Your task to perform on an android device: toggle priority inbox in the gmail app Image 0: 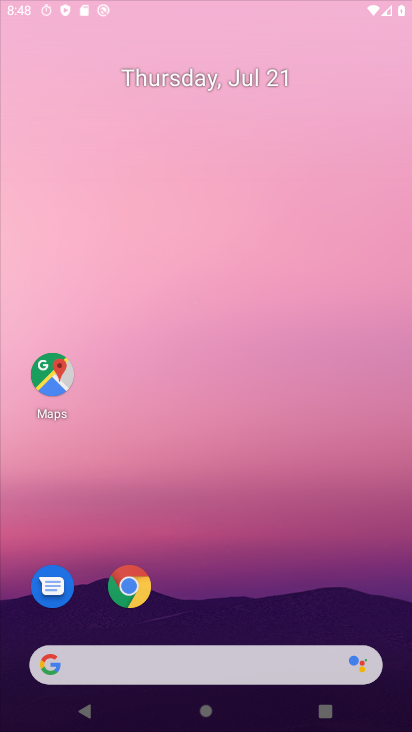
Step 0: click (316, 144)
Your task to perform on an android device: toggle priority inbox in the gmail app Image 1: 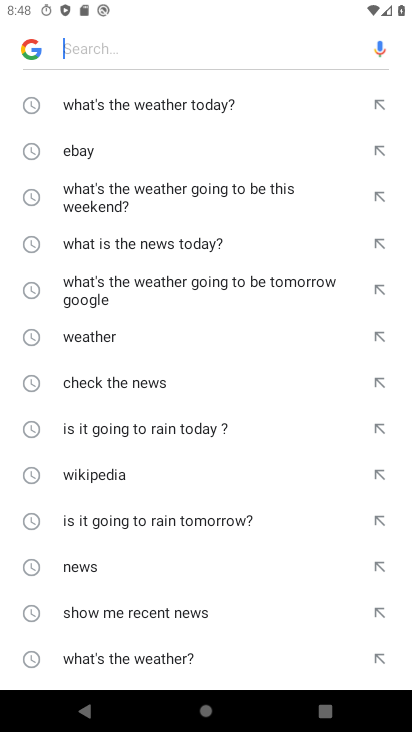
Step 1: press back button
Your task to perform on an android device: toggle priority inbox in the gmail app Image 2: 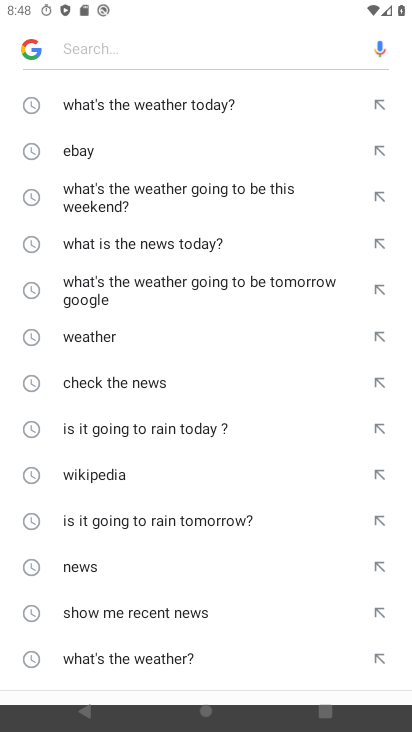
Step 2: press back button
Your task to perform on an android device: toggle priority inbox in the gmail app Image 3: 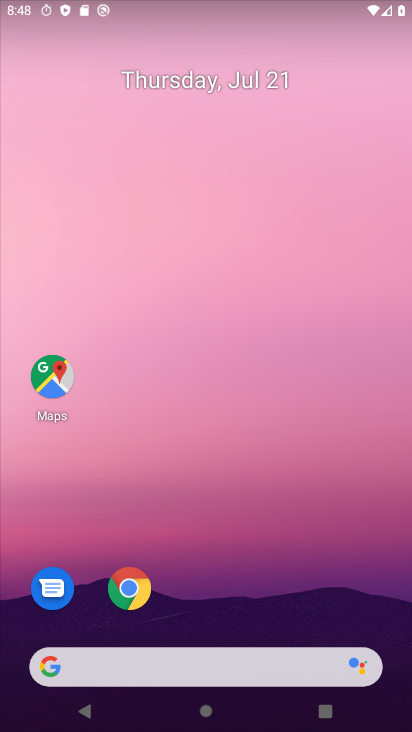
Step 3: drag from (277, 611) to (224, 33)
Your task to perform on an android device: toggle priority inbox in the gmail app Image 4: 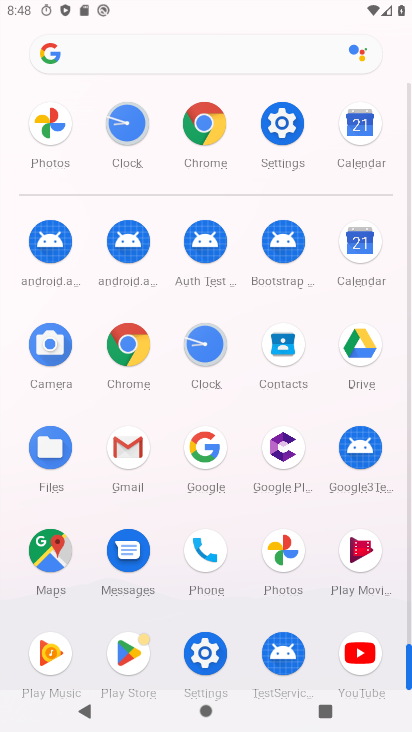
Step 4: click (136, 452)
Your task to perform on an android device: toggle priority inbox in the gmail app Image 5: 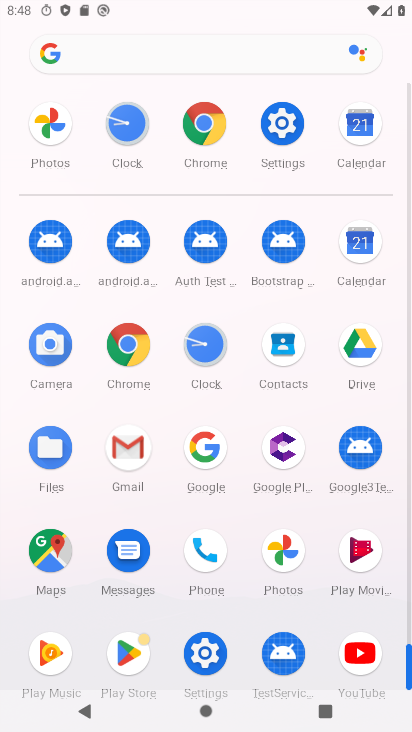
Step 5: click (129, 453)
Your task to perform on an android device: toggle priority inbox in the gmail app Image 6: 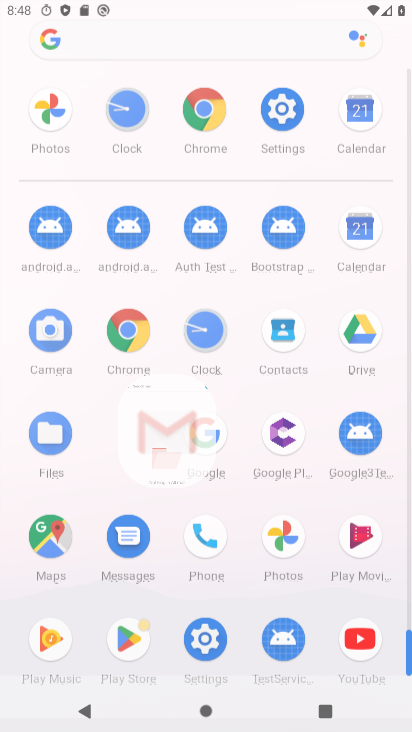
Step 6: click (129, 453)
Your task to perform on an android device: toggle priority inbox in the gmail app Image 7: 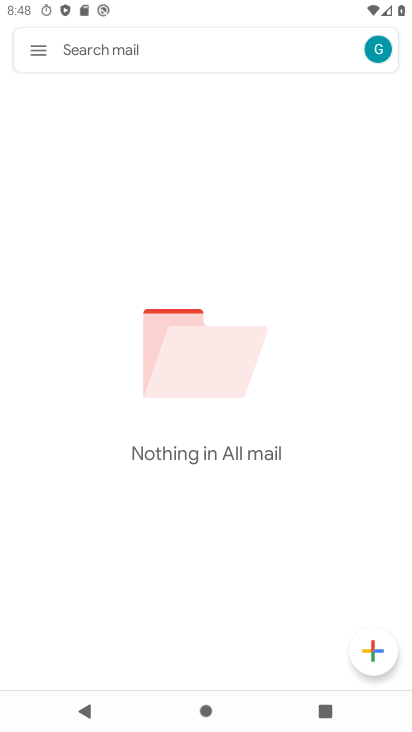
Step 7: click (38, 48)
Your task to perform on an android device: toggle priority inbox in the gmail app Image 8: 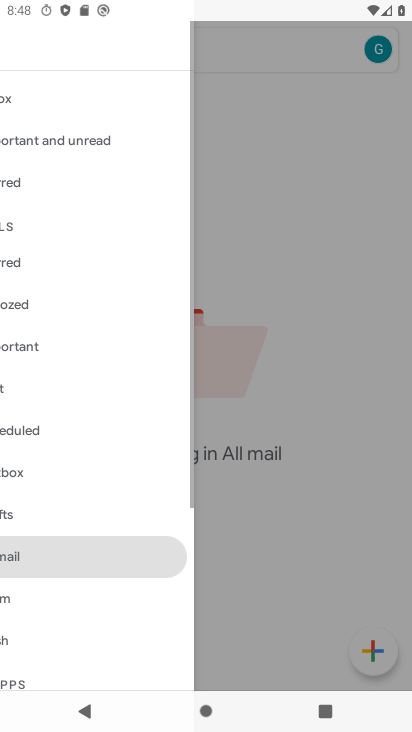
Step 8: click (37, 46)
Your task to perform on an android device: toggle priority inbox in the gmail app Image 9: 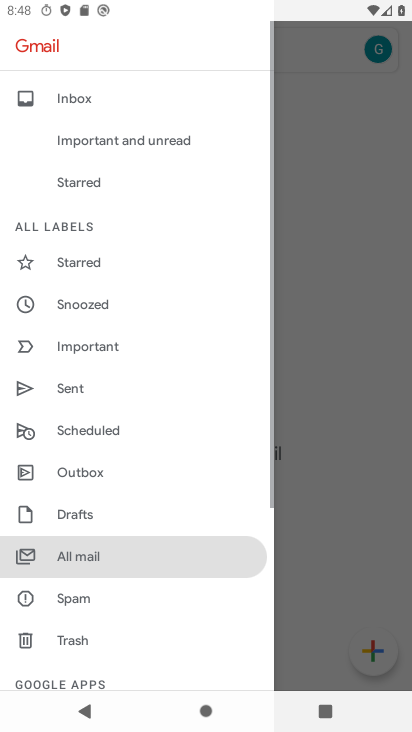
Step 9: click (37, 46)
Your task to perform on an android device: toggle priority inbox in the gmail app Image 10: 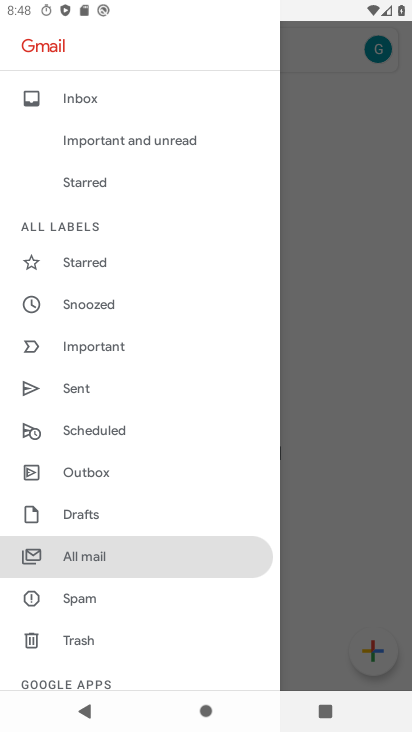
Step 10: click (90, 141)
Your task to perform on an android device: toggle priority inbox in the gmail app Image 11: 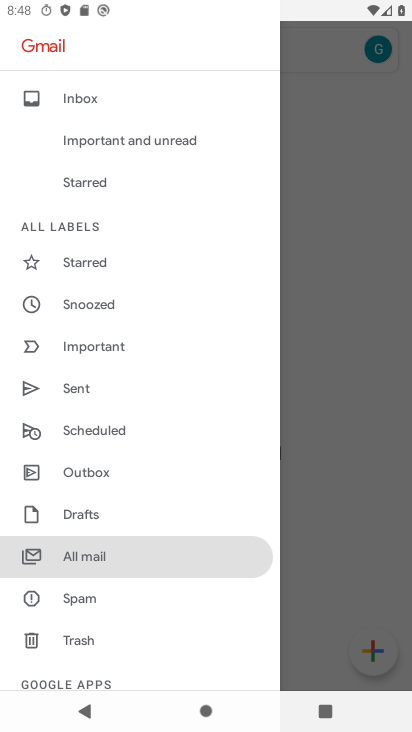
Step 11: drag from (126, 562) to (108, 205)
Your task to perform on an android device: toggle priority inbox in the gmail app Image 12: 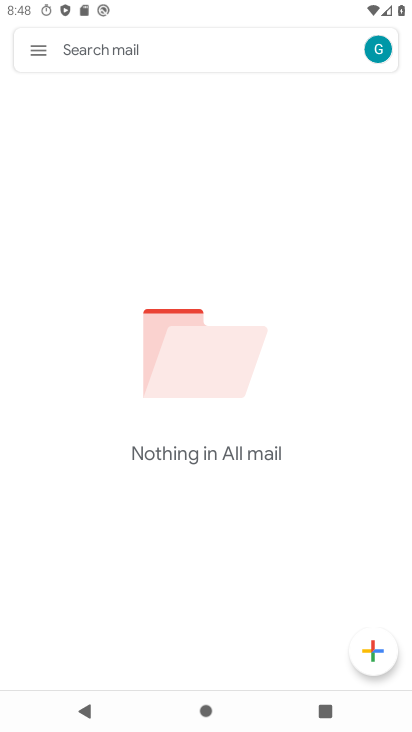
Step 12: drag from (159, 703) to (111, 98)
Your task to perform on an android device: toggle priority inbox in the gmail app Image 13: 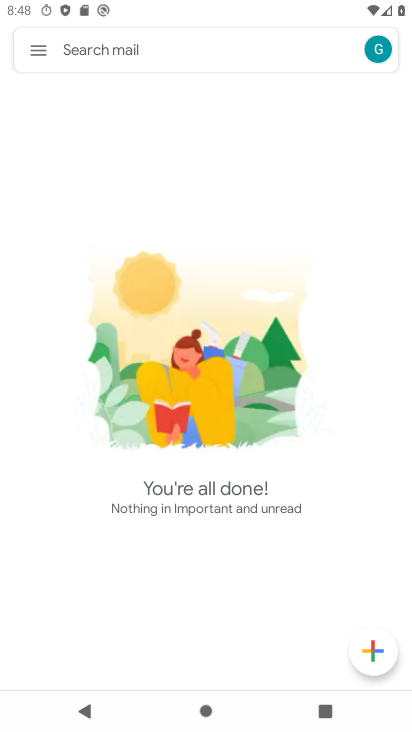
Step 13: click (27, 46)
Your task to perform on an android device: toggle priority inbox in the gmail app Image 14: 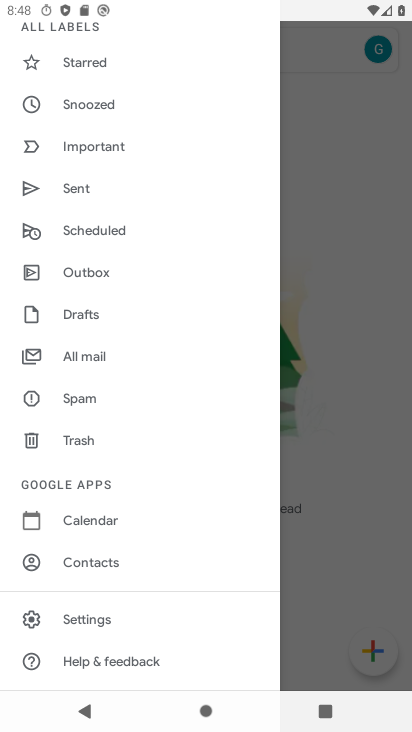
Step 14: drag from (69, 600) to (52, 184)
Your task to perform on an android device: toggle priority inbox in the gmail app Image 15: 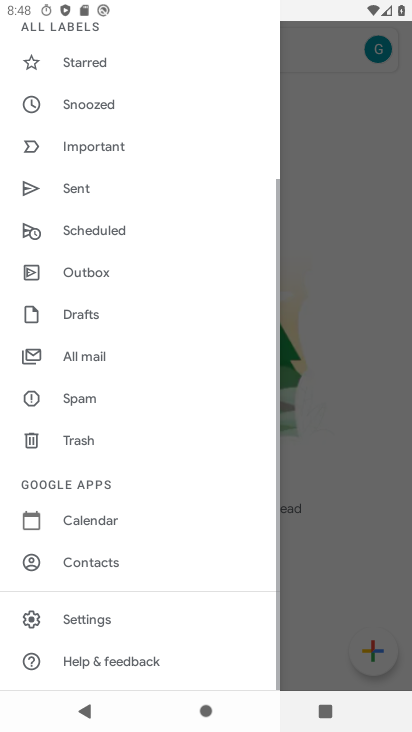
Step 15: drag from (90, 450) to (68, 195)
Your task to perform on an android device: toggle priority inbox in the gmail app Image 16: 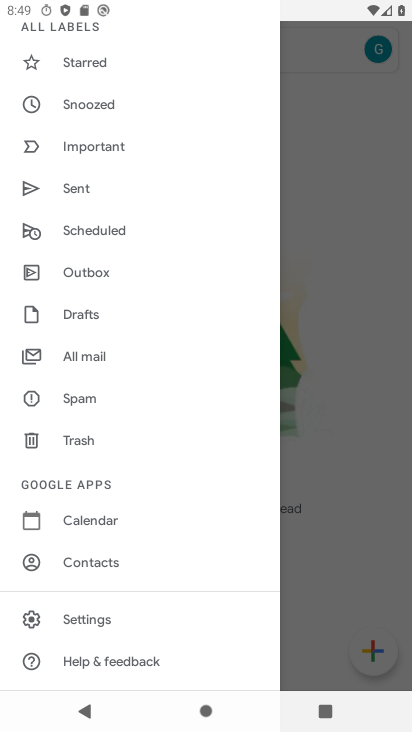
Step 16: click (83, 620)
Your task to perform on an android device: toggle priority inbox in the gmail app Image 17: 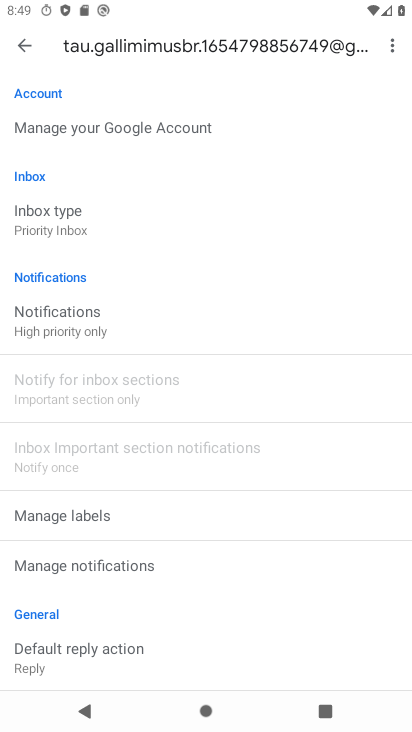
Step 17: task complete